Your task to perform on an android device: change text size in settings app Image 0: 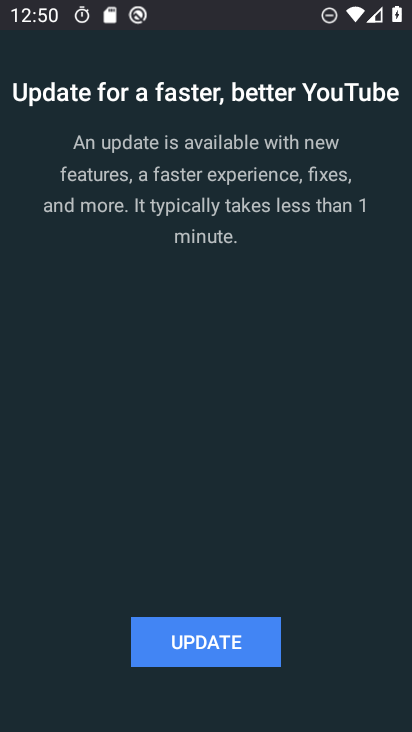
Step 0: press home button
Your task to perform on an android device: change text size in settings app Image 1: 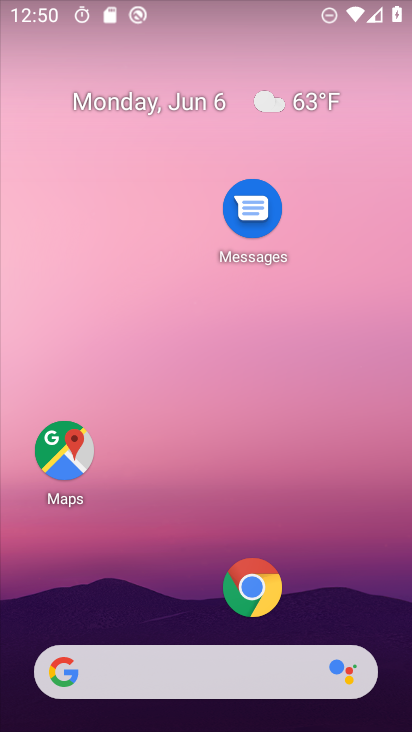
Step 1: drag from (139, 621) to (188, 23)
Your task to perform on an android device: change text size in settings app Image 2: 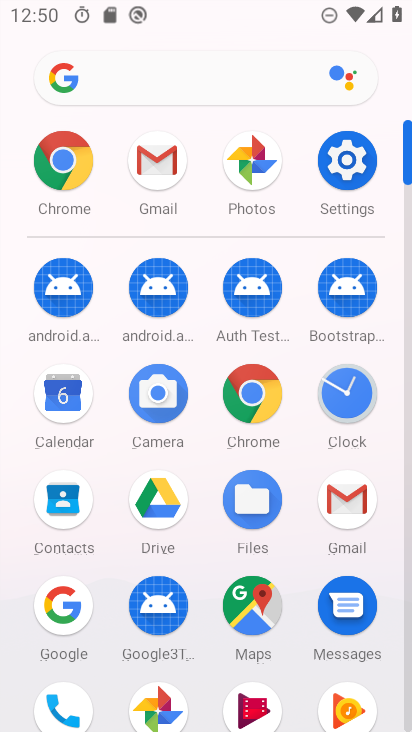
Step 2: click (360, 135)
Your task to perform on an android device: change text size in settings app Image 3: 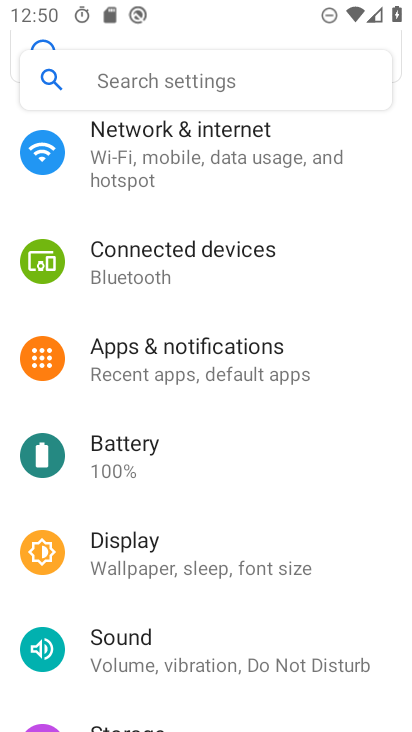
Step 3: click (167, 540)
Your task to perform on an android device: change text size in settings app Image 4: 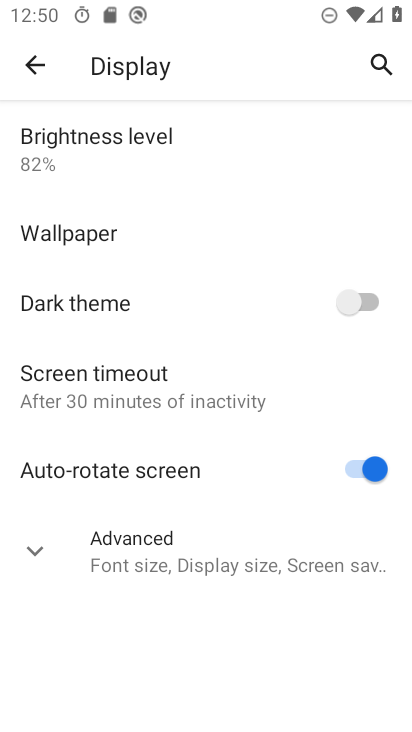
Step 4: click (167, 540)
Your task to perform on an android device: change text size in settings app Image 5: 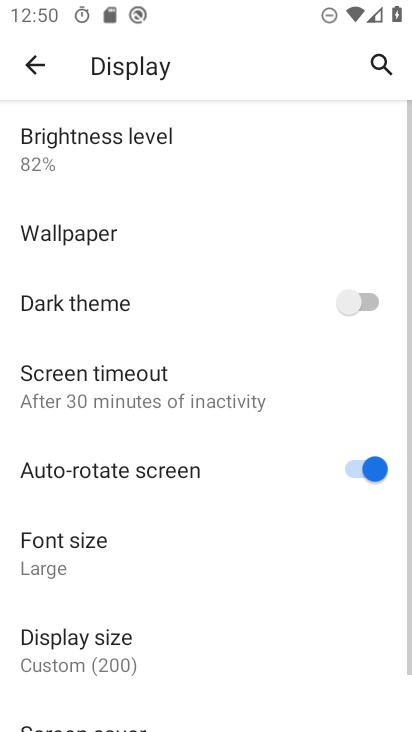
Step 5: click (167, 540)
Your task to perform on an android device: change text size in settings app Image 6: 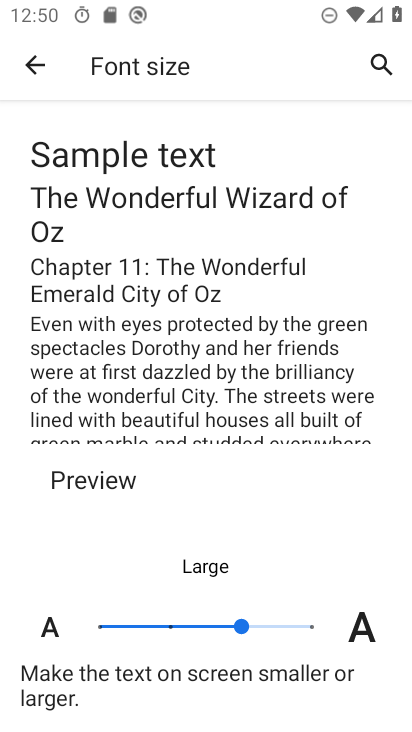
Step 6: click (100, 624)
Your task to perform on an android device: change text size in settings app Image 7: 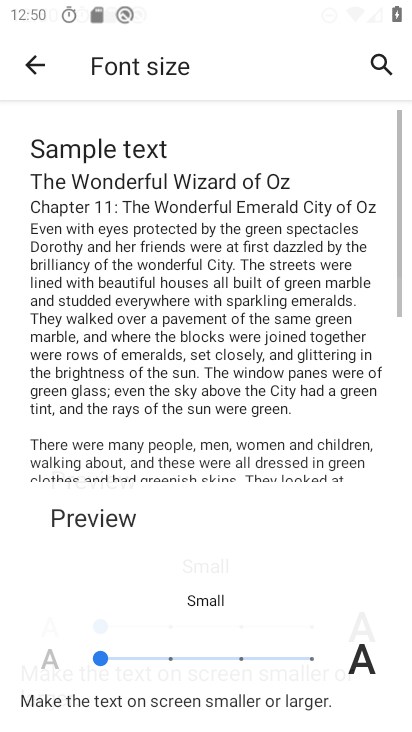
Step 7: task complete